Your task to perform on an android device: open app "Pandora - Music & Podcasts" Image 0: 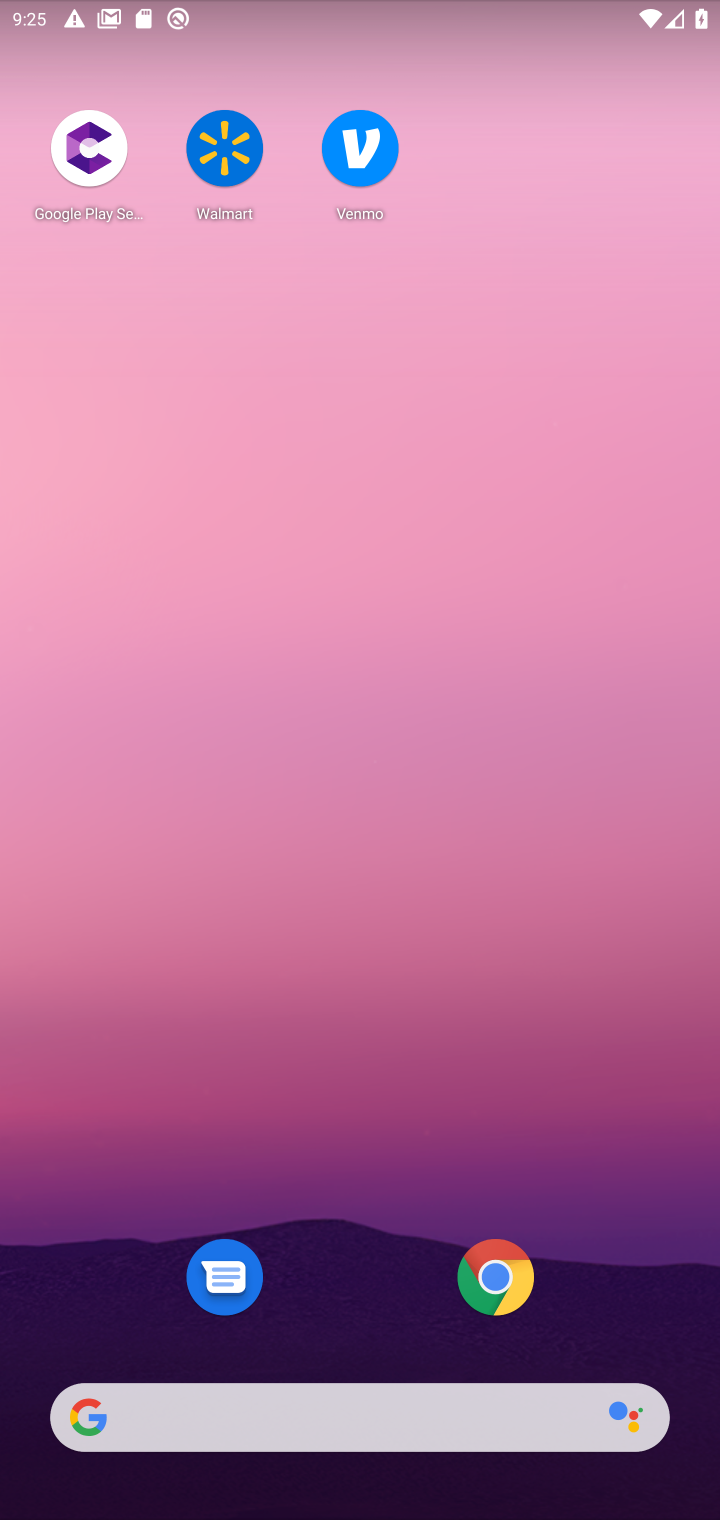
Step 0: drag from (280, 1353) to (247, 163)
Your task to perform on an android device: open app "Pandora - Music & Podcasts" Image 1: 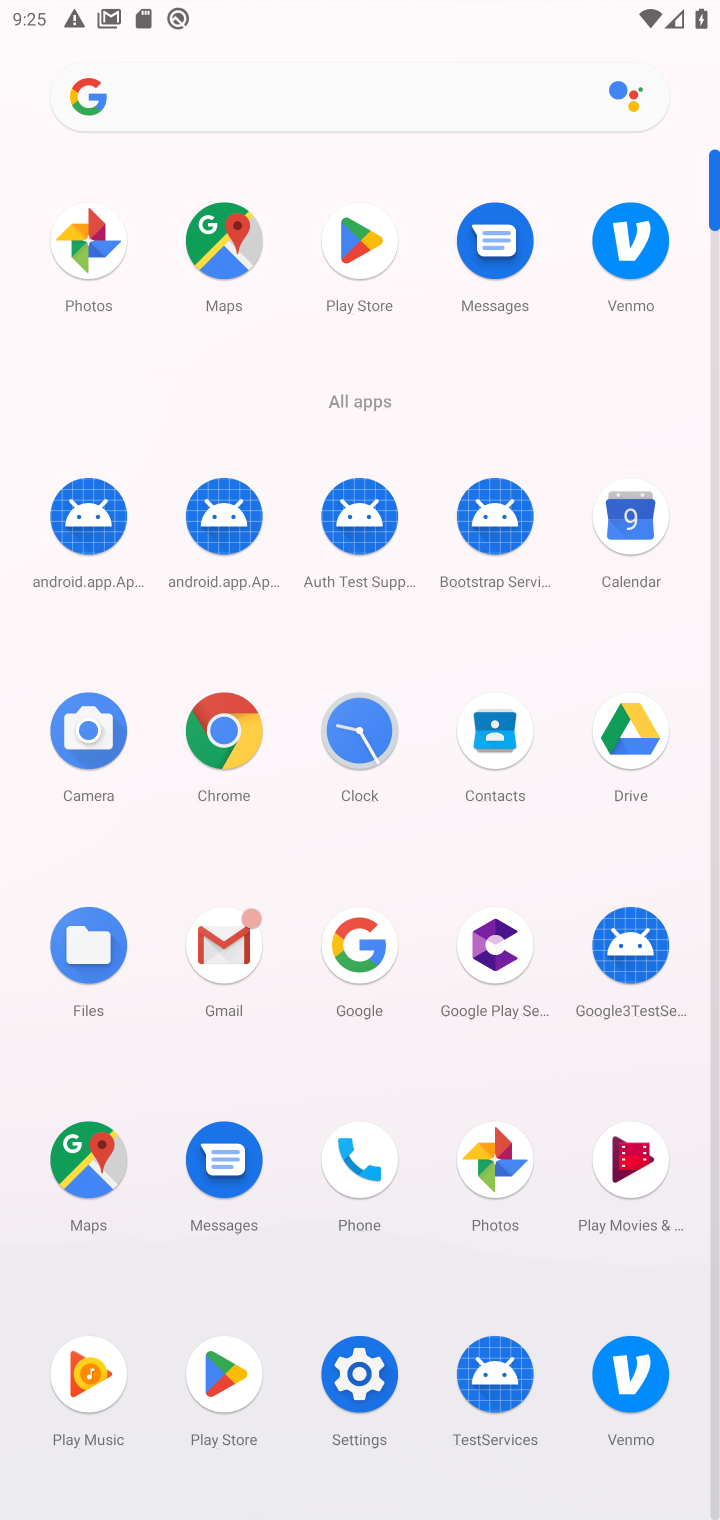
Step 1: click (218, 1353)
Your task to perform on an android device: open app "Pandora - Music & Podcasts" Image 2: 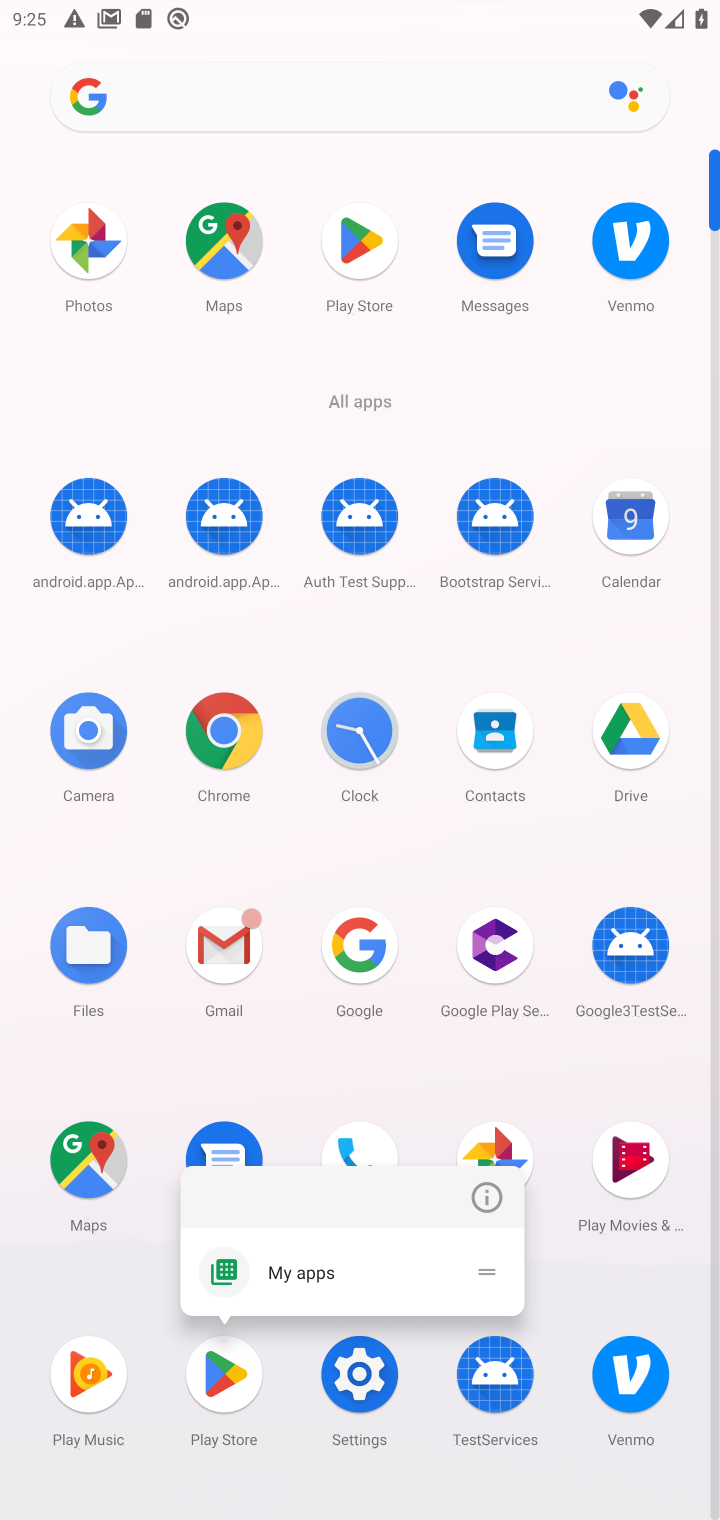
Step 2: click (238, 1385)
Your task to perform on an android device: open app "Pandora - Music & Podcasts" Image 3: 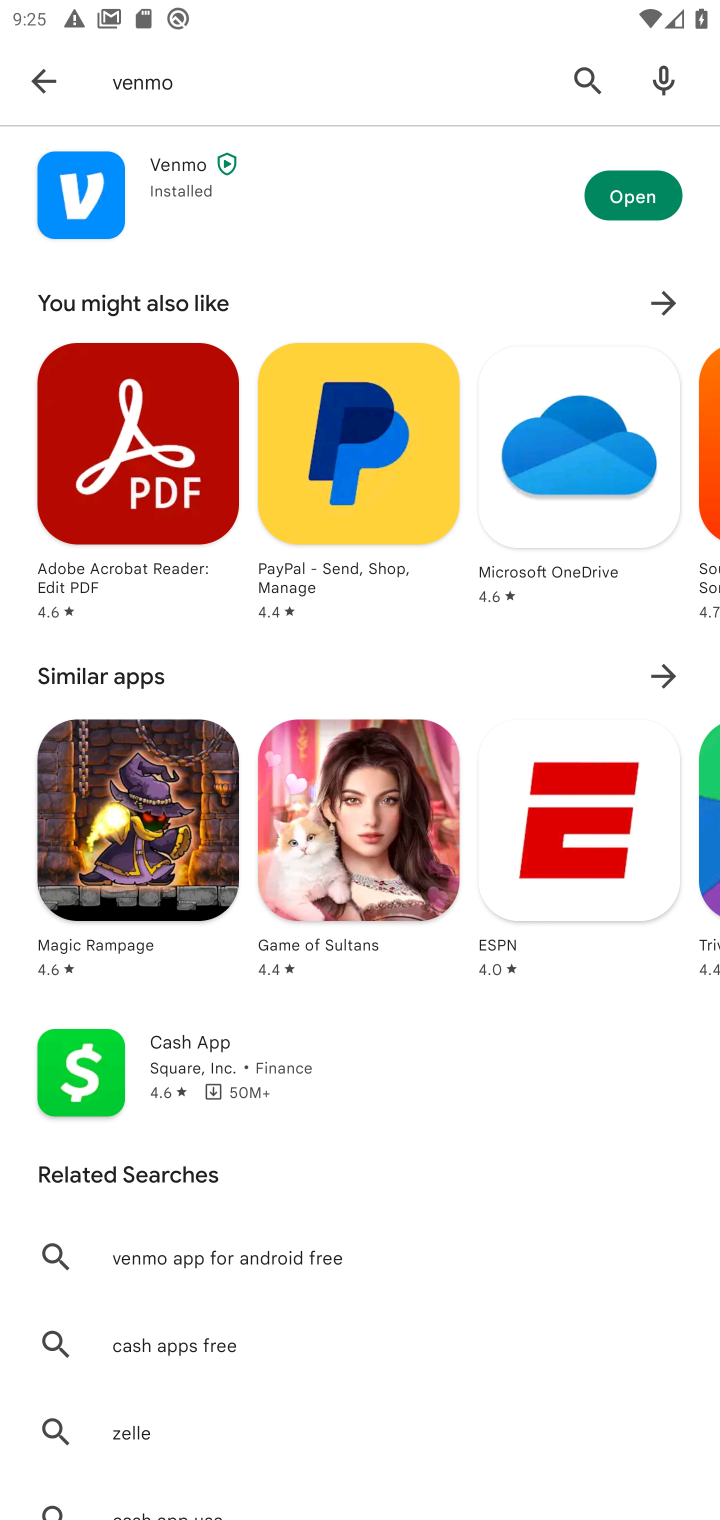
Step 3: click (27, 85)
Your task to perform on an android device: open app "Pandora - Music & Podcasts" Image 4: 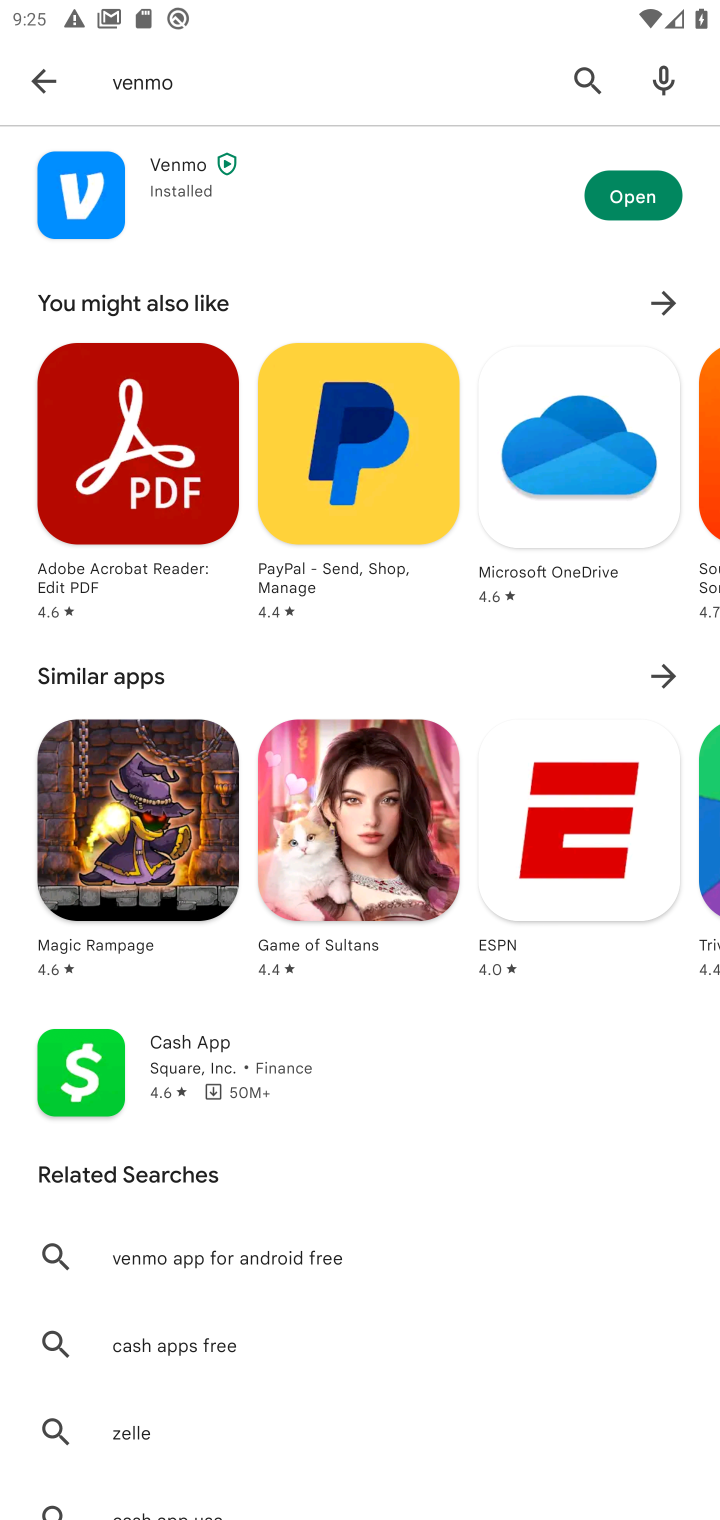
Step 4: click (38, 75)
Your task to perform on an android device: open app "Pandora - Music & Podcasts" Image 5: 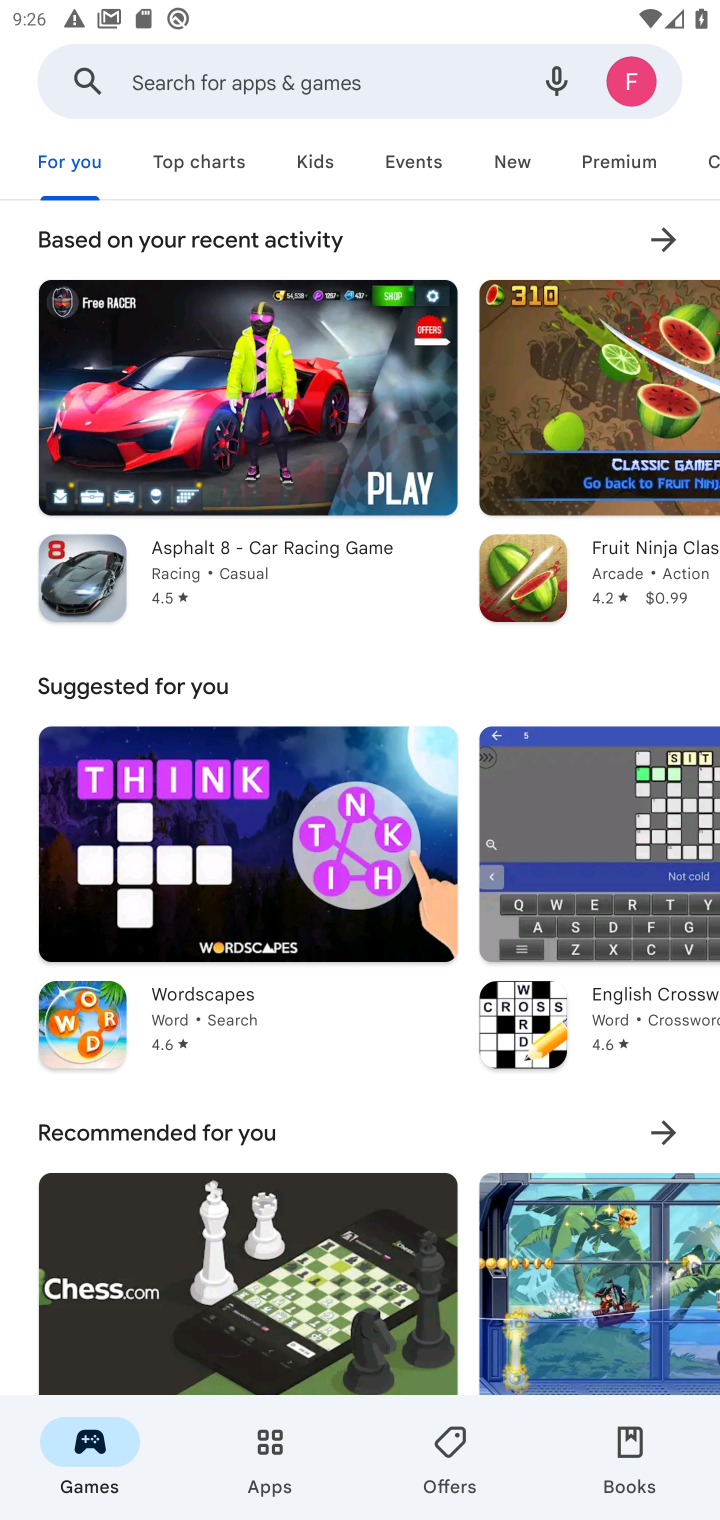
Step 5: click (236, 99)
Your task to perform on an android device: open app "Pandora - Music & Podcasts" Image 6: 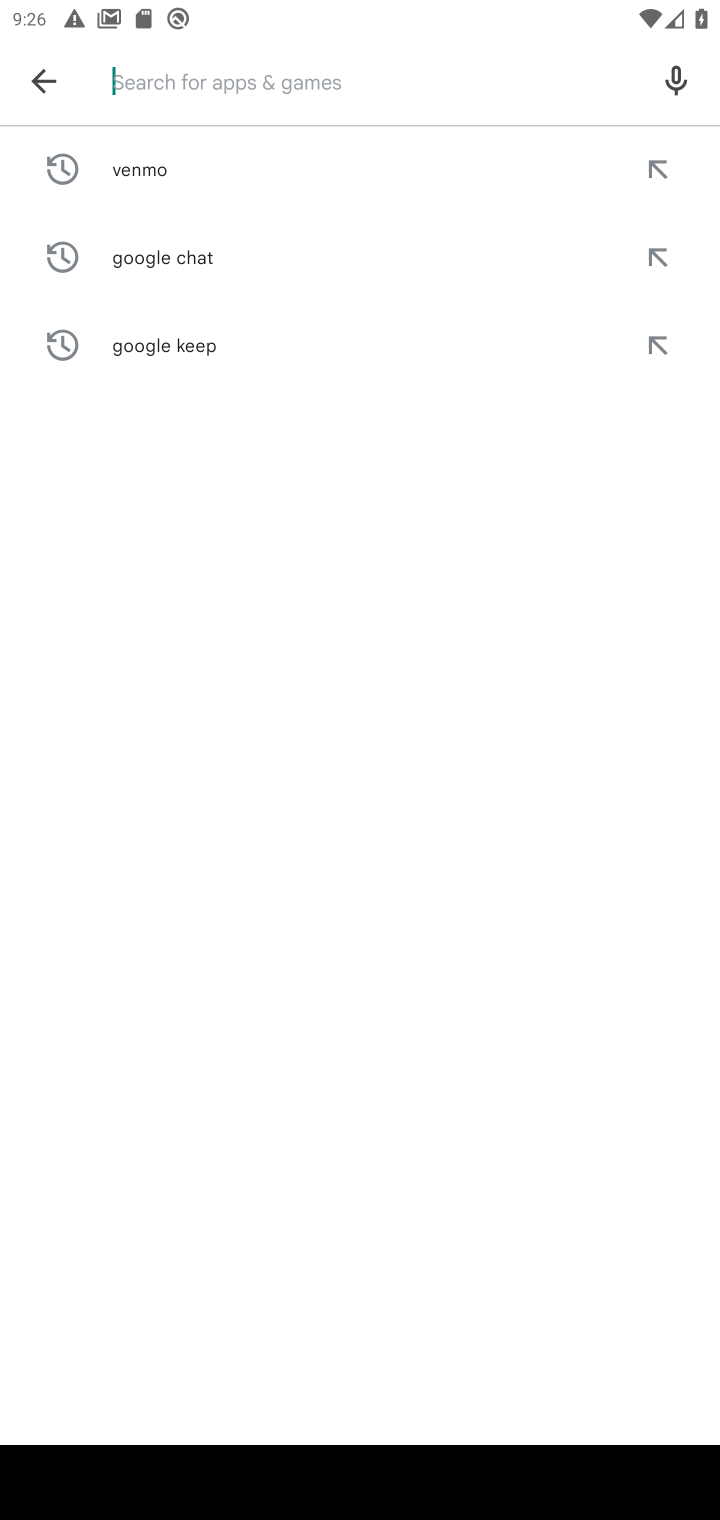
Step 6: type "Pandora - Music & Podcasts"
Your task to perform on an android device: open app "Pandora - Music & Podcasts" Image 7: 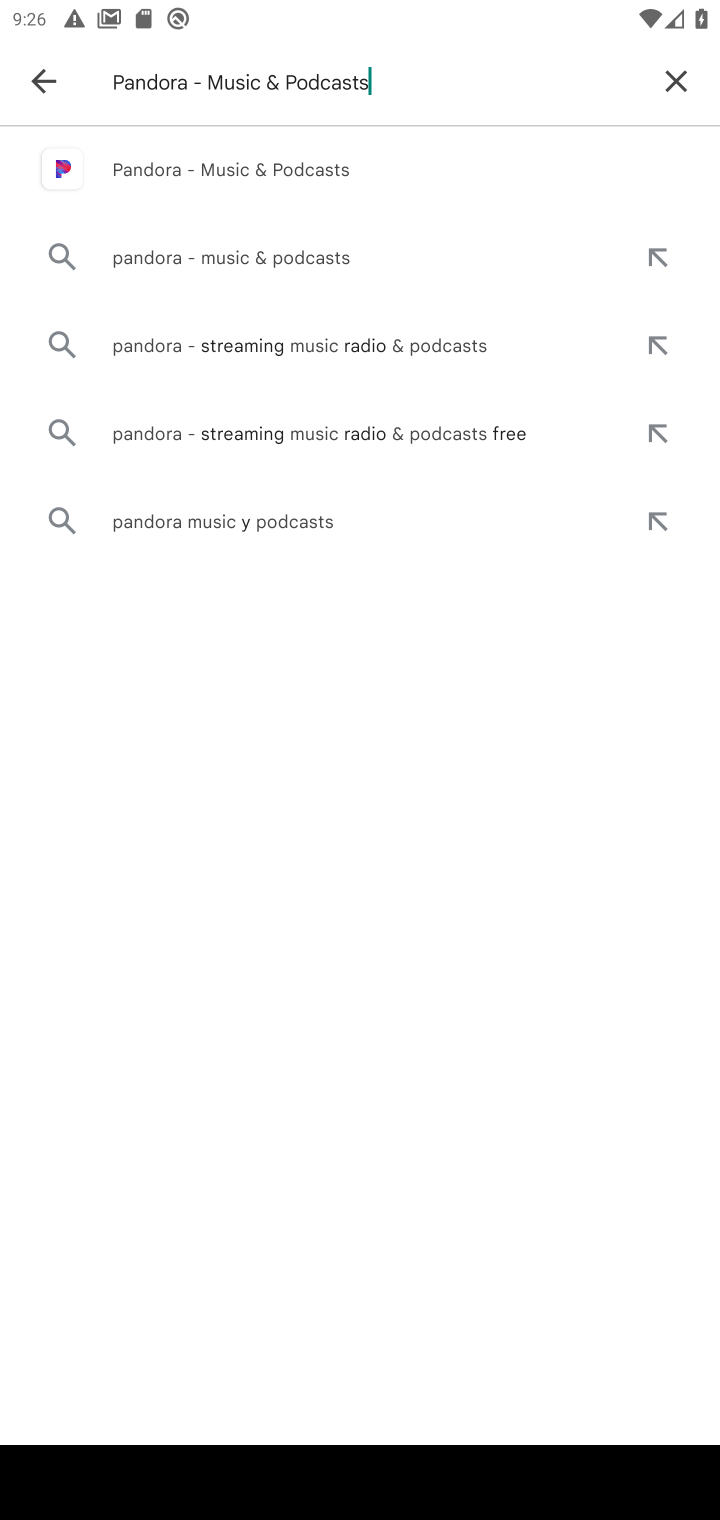
Step 7: click (116, 167)
Your task to perform on an android device: open app "Pandora - Music & Podcasts" Image 8: 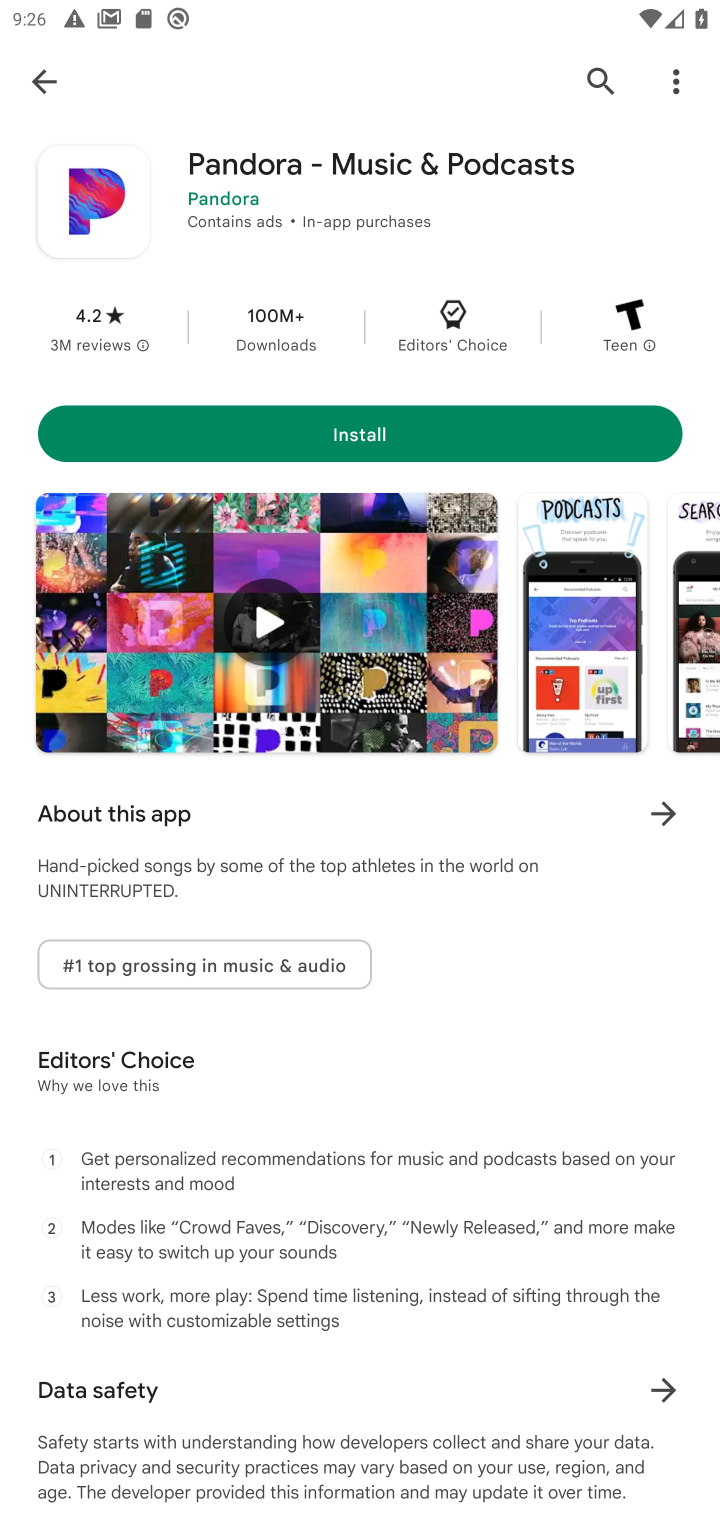
Step 8: click (250, 421)
Your task to perform on an android device: open app "Pandora - Music & Podcasts" Image 9: 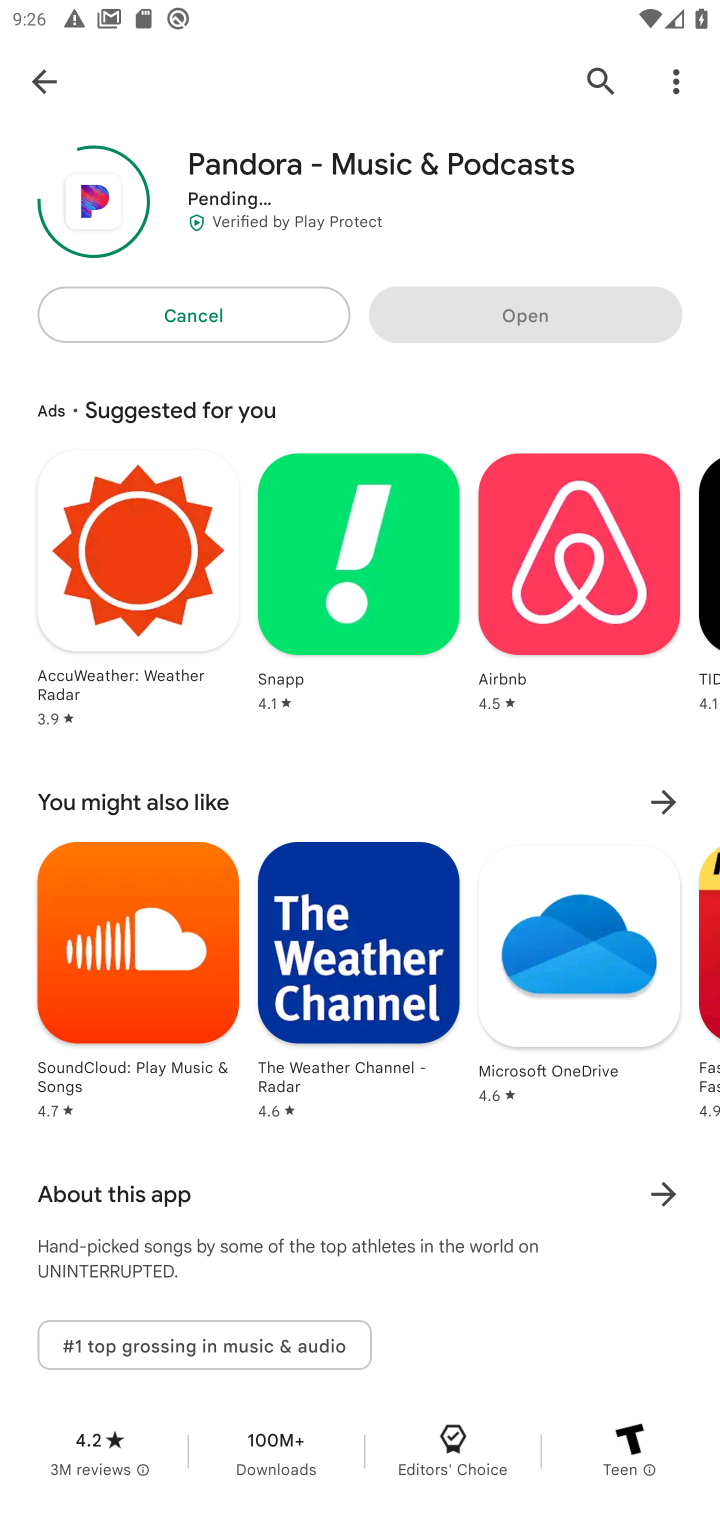
Step 9: click (229, 331)
Your task to perform on an android device: open app "Pandora - Music & Podcasts" Image 10: 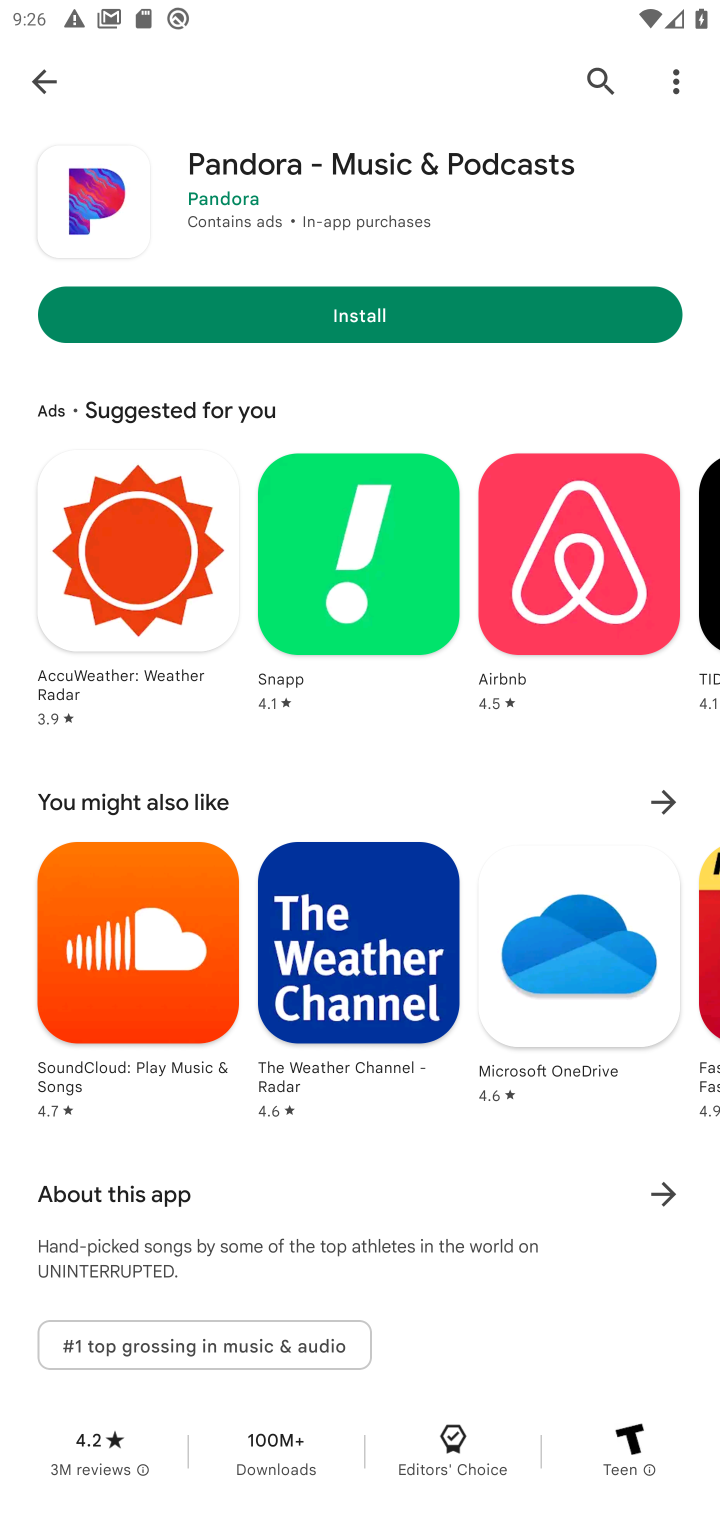
Step 10: task complete